Your task to perform on an android device: What's the weather? Image 0: 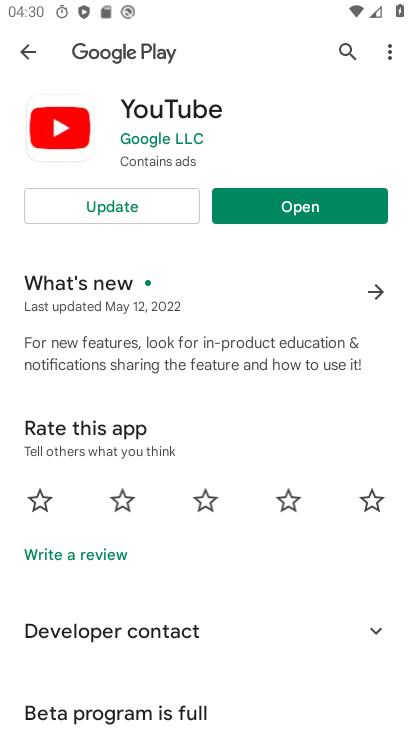
Step 0: press home button
Your task to perform on an android device: What's the weather? Image 1: 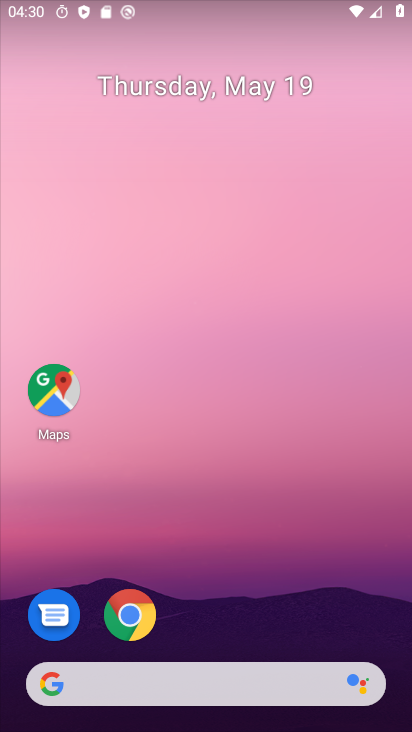
Step 1: click (177, 682)
Your task to perform on an android device: What's the weather? Image 2: 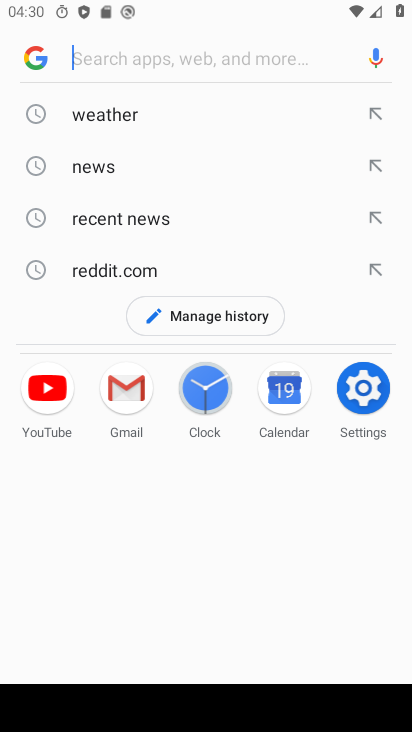
Step 2: click (104, 112)
Your task to perform on an android device: What's the weather? Image 3: 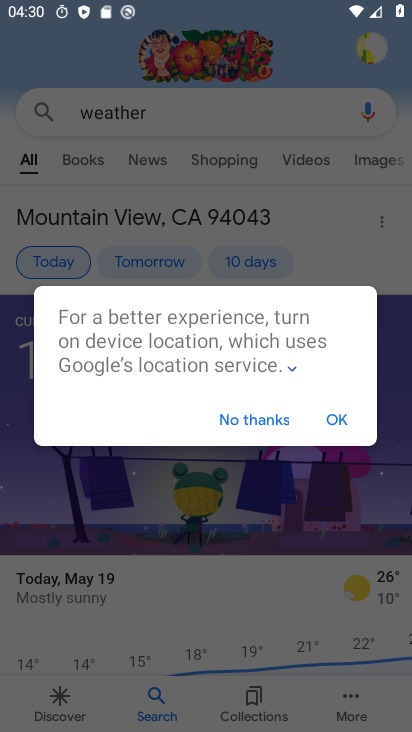
Step 3: click (256, 426)
Your task to perform on an android device: What's the weather? Image 4: 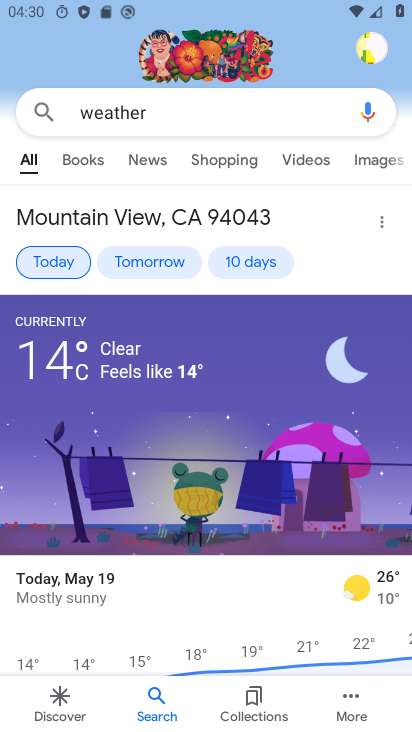
Step 4: task complete